Your task to perform on an android device: Search for Mexican restaurants on Maps Image 0: 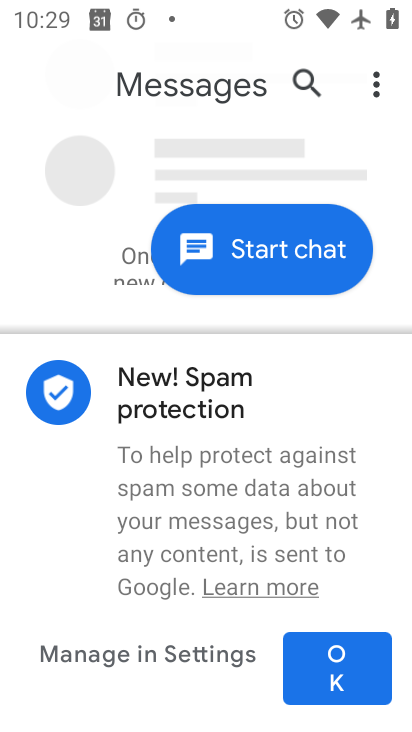
Step 0: press home button
Your task to perform on an android device: Search for Mexican restaurants on Maps Image 1: 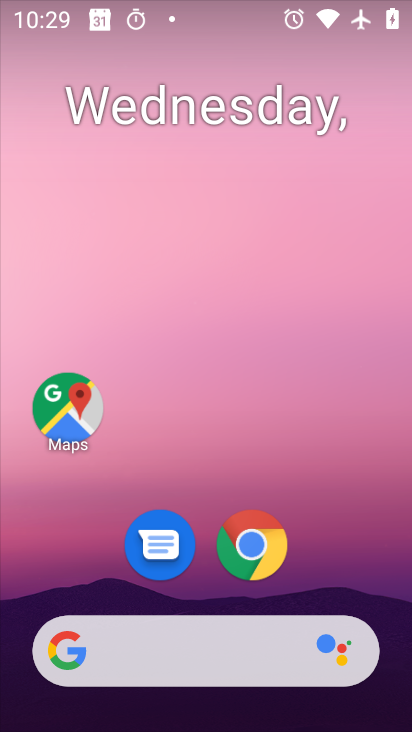
Step 1: click (82, 419)
Your task to perform on an android device: Search for Mexican restaurants on Maps Image 2: 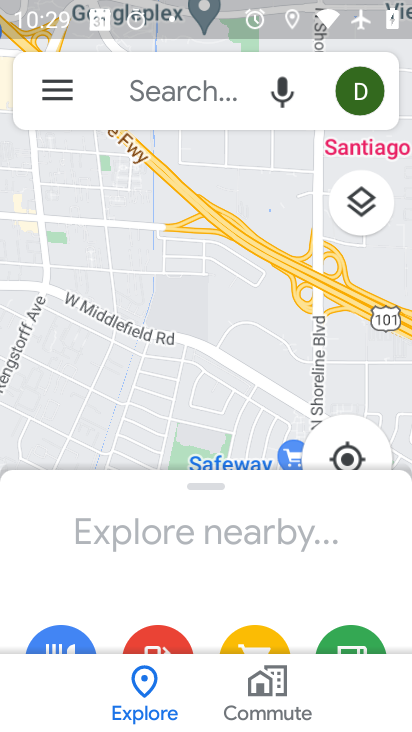
Step 2: click (173, 92)
Your task to perform on an android device: Search for Mexican restaurants on Maps Image 3: 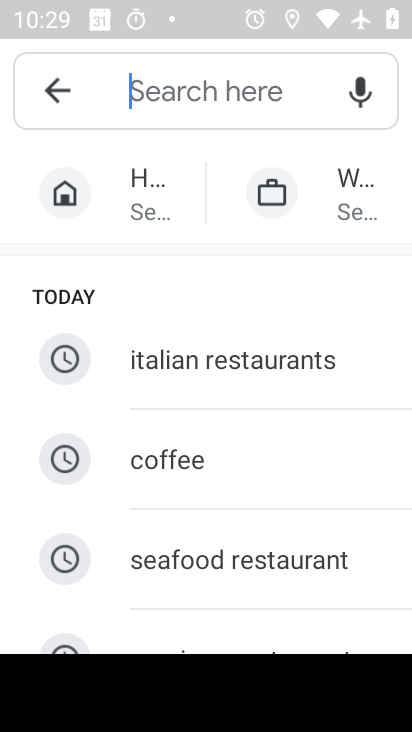
Step 3: drag from (266, 607) to (314, 260)
Your task to perform on an android device: Search for Mexican restaurants on Maps Image 4: 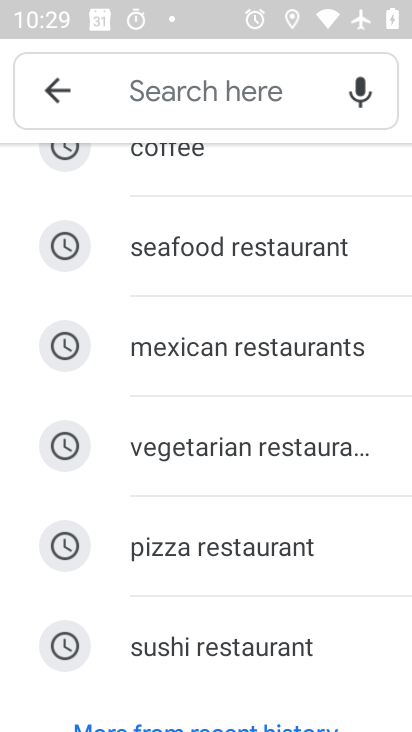
Step 4: click (251, 352)
Your task to perform on an android device: Search for Mexican restaurants on Maps Image 5: 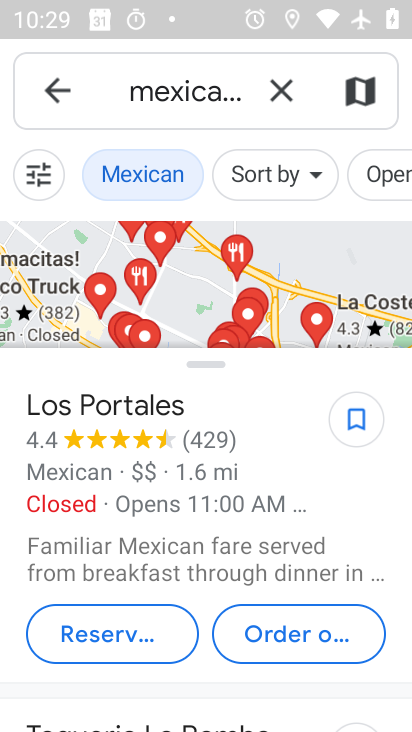
Step 5: task complete